Your task to perform on an android device: Is it going to rain today? Image 0: 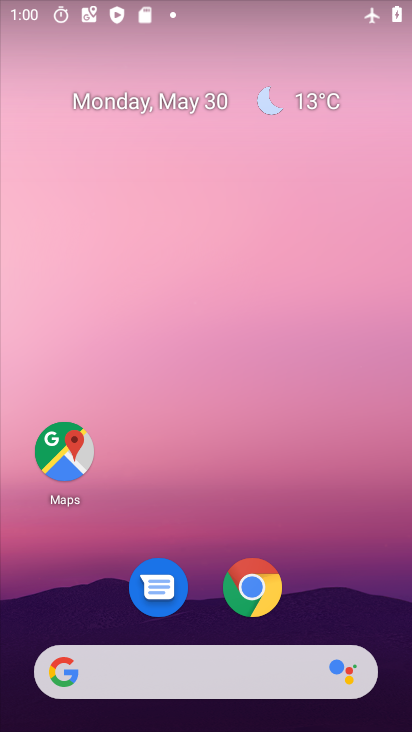
Step 0: click (321, 100)
Your task to perform on an android device: Is it going to rain today? Image 1: 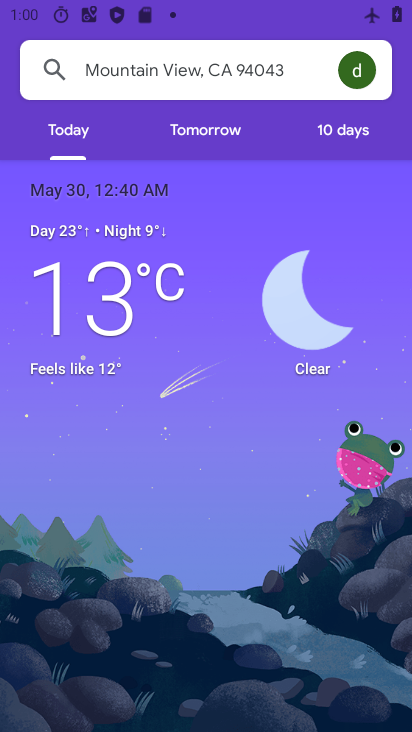
Step 1: task complete